Your task to perform on an android device: What's the weather today? Image 0: 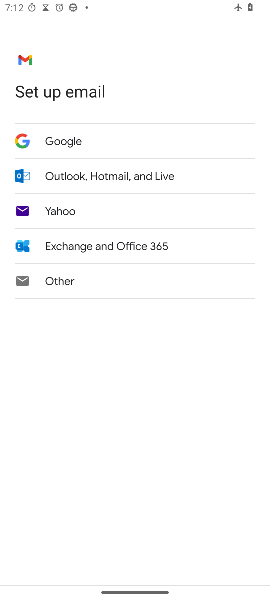
Step 0: press home button
Your task to perform on an android device: What's the weather today? Image 1: 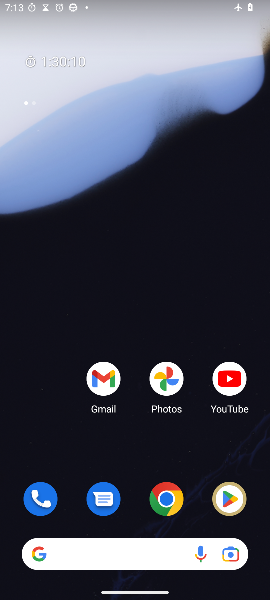
Step 1: drag from (53, 489) to (118, 77)
Your task to perform on an android device: What's the weather today? Image 2: 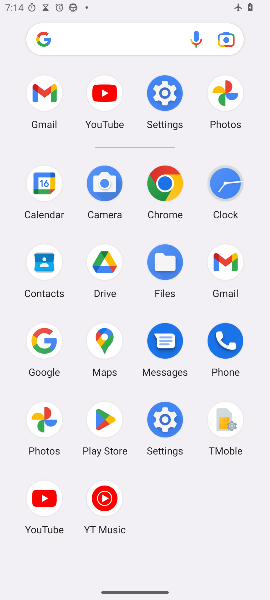
Step 2: click (53, 349)
Your task to perform on an android device: What's the weather today? Image 3: 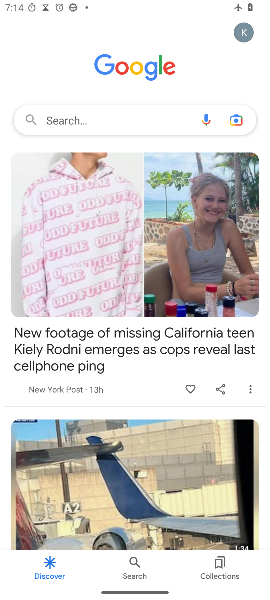
Step 3: click (163, 118)
Your task to perform on an android device: What's the weather today? Image 4: 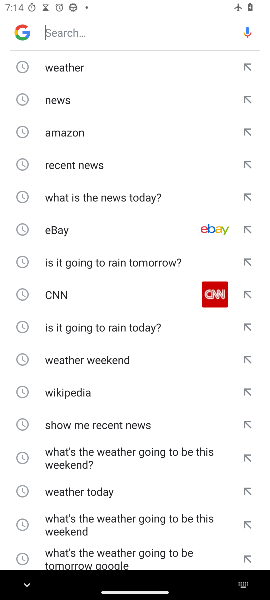
Step 4: click (95, 71)
Your task to perform on an android device: What's the weather today? Image 5: 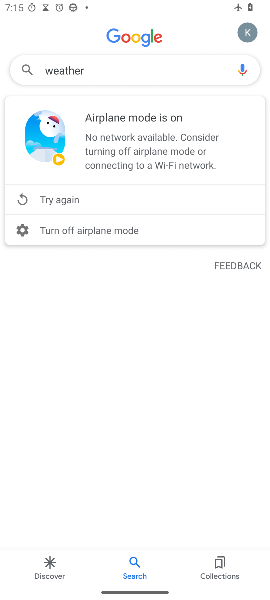
Step 5: task complete